Your task to perform on an android device: open chrome and create a bookmark for the current page Image 0: 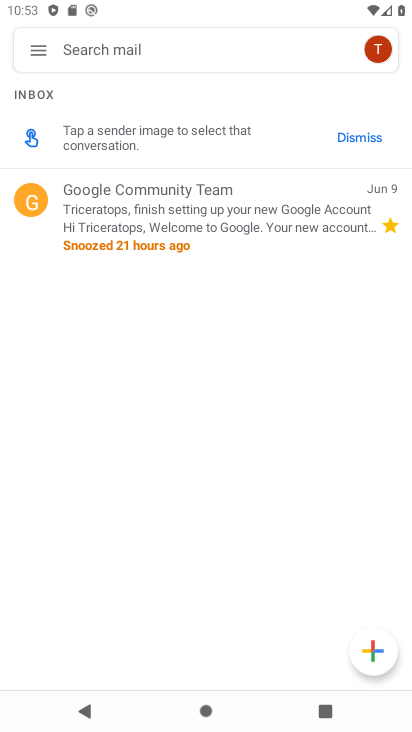
Step 0: drag from (284, 522) to (220, 221)
Your task to perform on an android device: open chrome and create a bookmark for the current page Image 1: 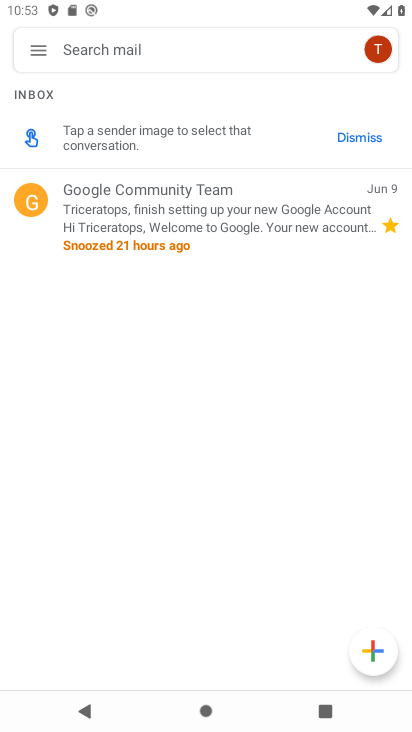
Step 1: press home button
Your task to perform on an android device: open chrome and create a bookmark for the current page Image 2: 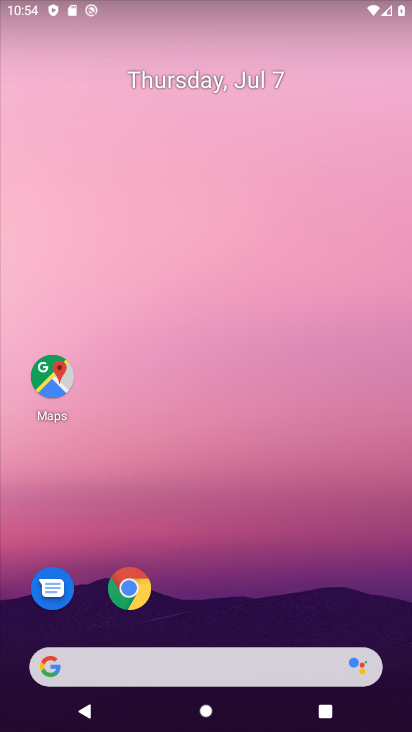
Step 2: click (129, 590)
Your task to perform on an android device: open chrome and create a bookmark for the current page Image 3: 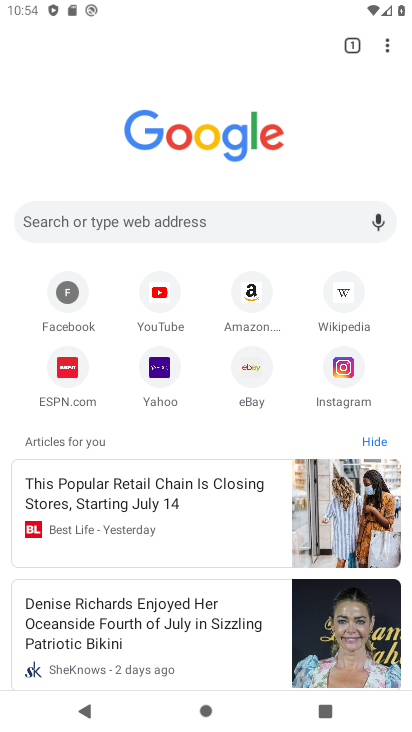
Step 3: click (390, 39)
Your task to perform on an android device: open chrome and create a bookmark for the current page Image 4: 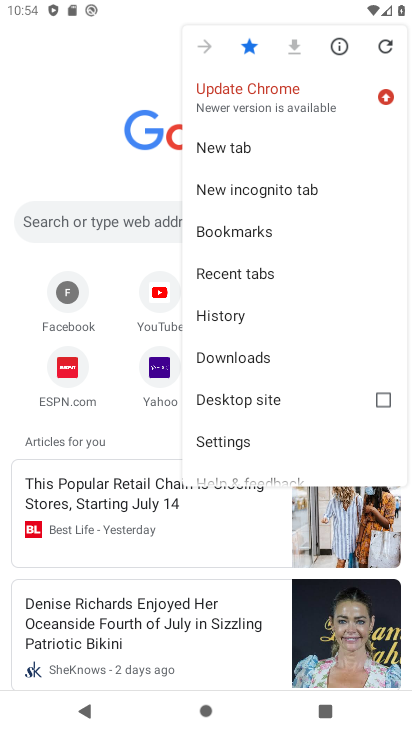
Step 4: task complete